Your task to perform on an android device: Go to display settings Image 0: 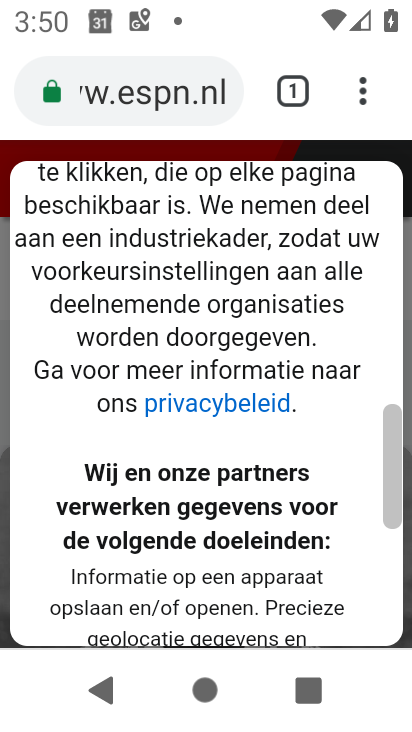
Step 0: press home button
Your task to perform on an android device: Go to display settings Image 1: 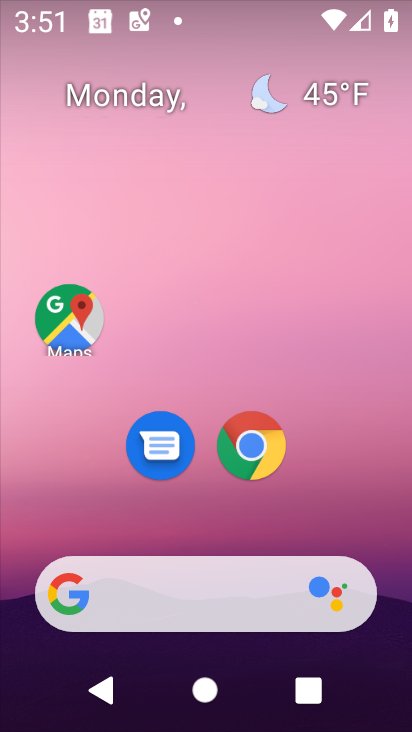
Step 1: drag from (312, 525) to (215, 103)
Your task to perform on an android device: Go to display settings Image 2: 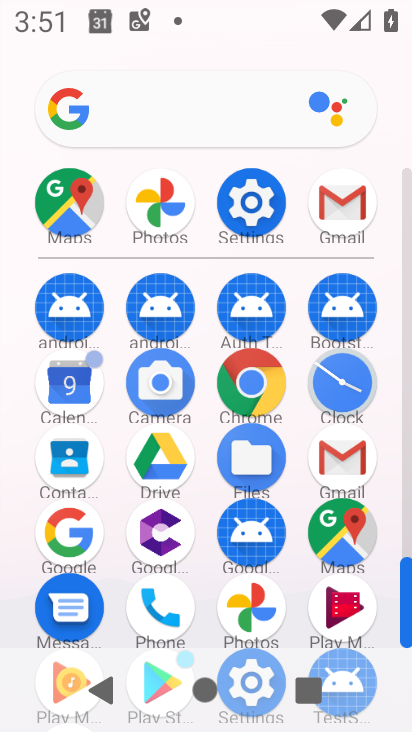
Step 2: click (246, 215)
Your task to perform on an android device: Go to display settings Image 3: 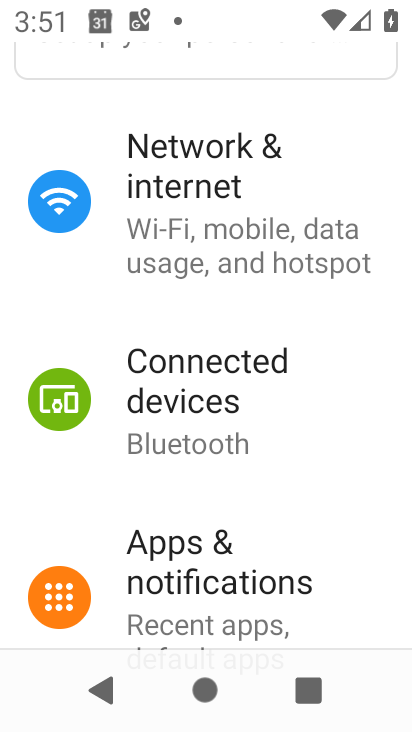
Step 3: drag from (213, 586) to (176, 314)
Your task to perform on an android device: Go to display settings Image 4: 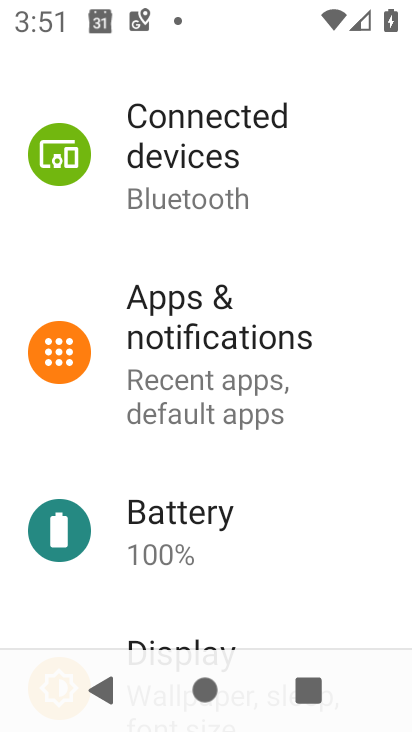
Step 4: drag from (182, 566) to (152, 342)
Your task to perform on an android device: Go to display settings Image 5: 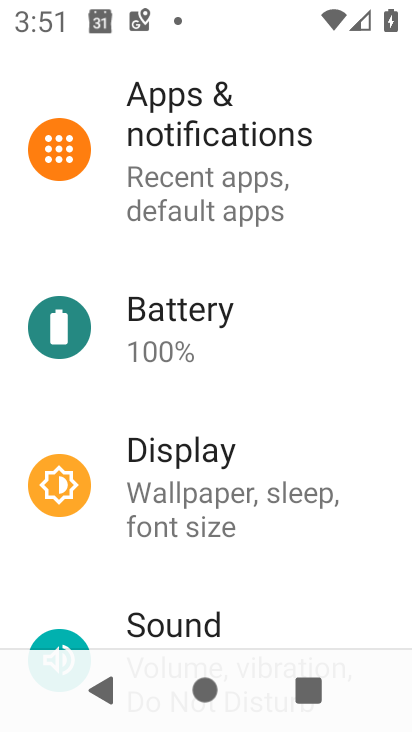
Step 5: click (185, 482)
Your task to perform on an android device: Go to display settings Image 6: 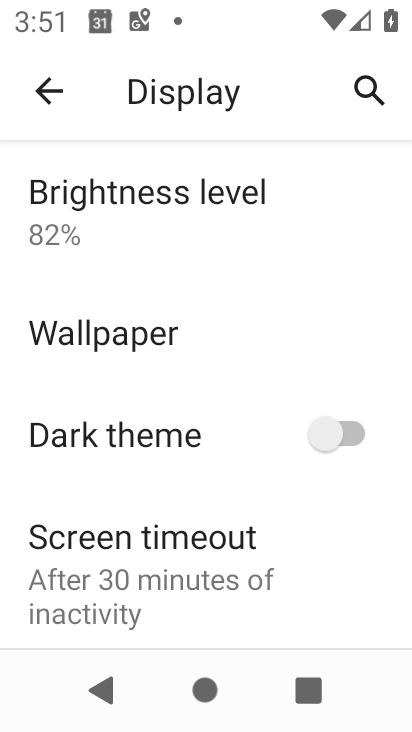
Step 6: task complete